Your task to perform on an android device: Open Google Chrome and open the bookmarks view Image 0: 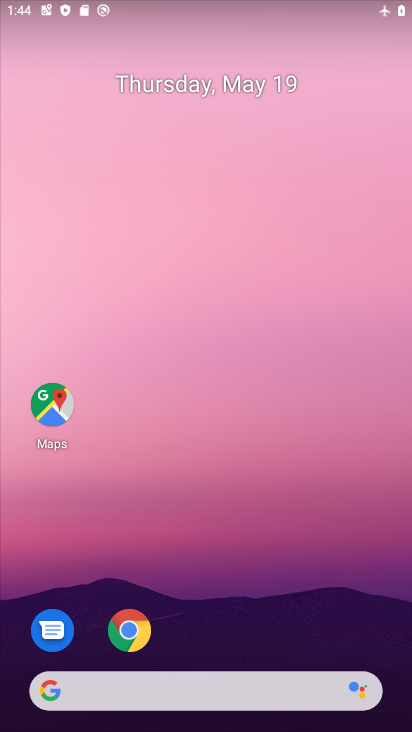
Step 0: click (141, 623)
Your task to perform on an android device: Open Google Chrome and open the bookmarks view Image 1: 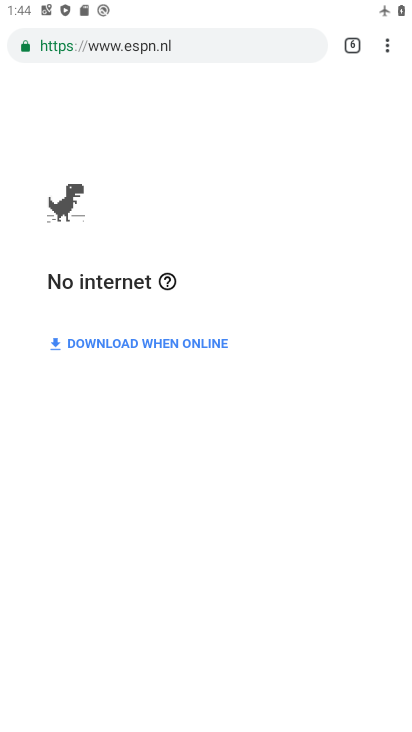
Step 1: press home button
Your task to perform on an android device: Open Google Chrome and open the bookmarks view Image 2: 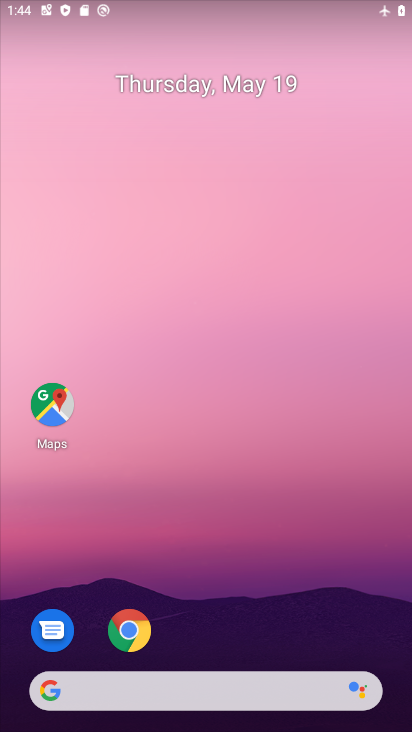
Step 2: click (140, 624)
Your task to perform on an android device: Open Google Chrome and open the bookmarks view Image 3: 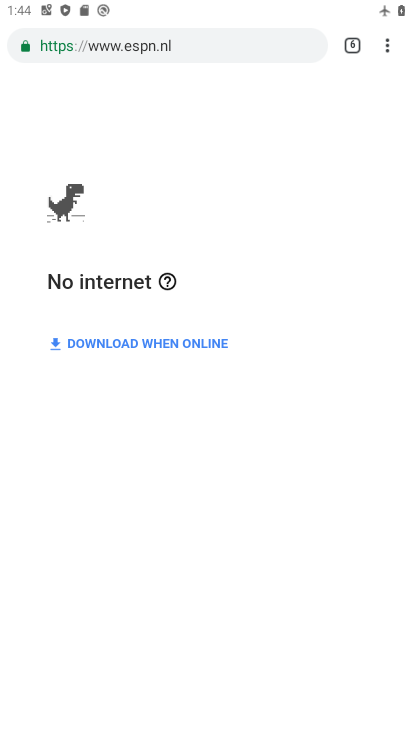
Step 3: click (386, 49)
Your task to perform on an android device: Open Google Chrome and open the bookmarks view Image 4: 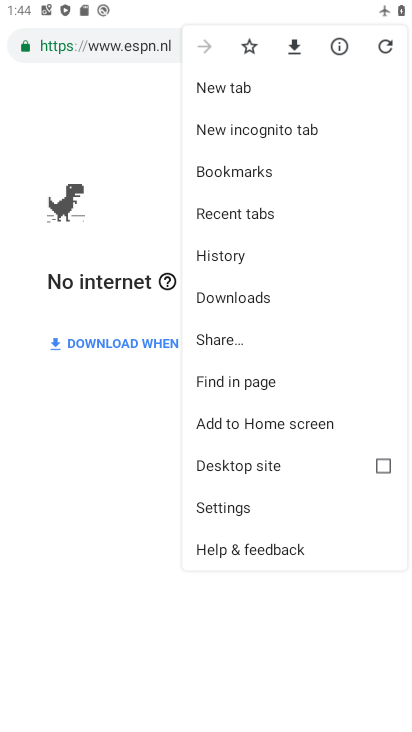
Step 4: click (216, 179)
Your task to perform on an android device: Open Google Chrome and open the bookmarks view Image 5: 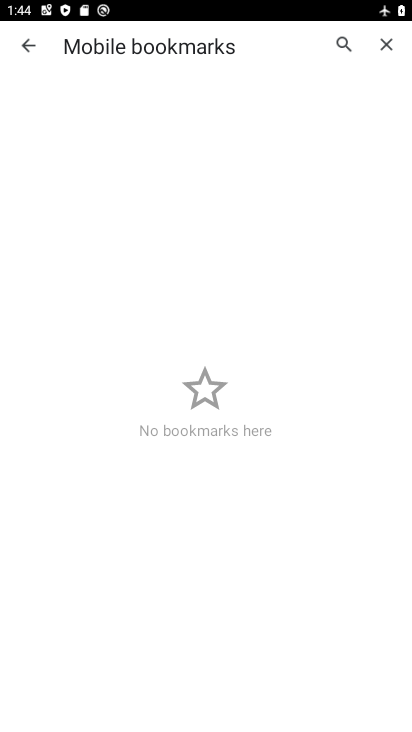
Step 5: task complete